Your task to perform on an android device: empty trash in the gmail app Image 0: 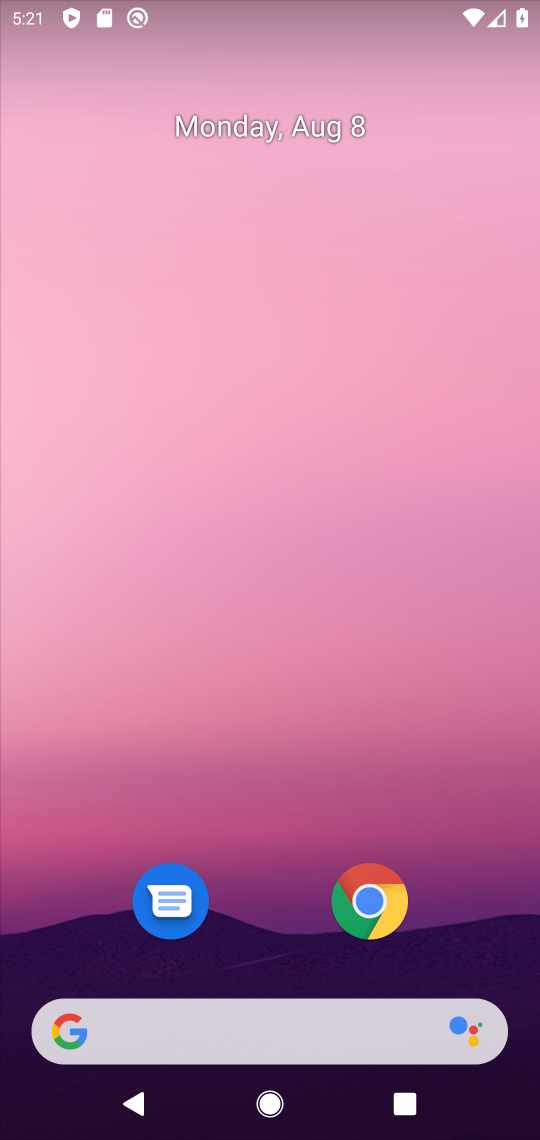
Step 0: click (428, 910)
Your task to perform on an android device: empty trash in the gmail app Image 1: 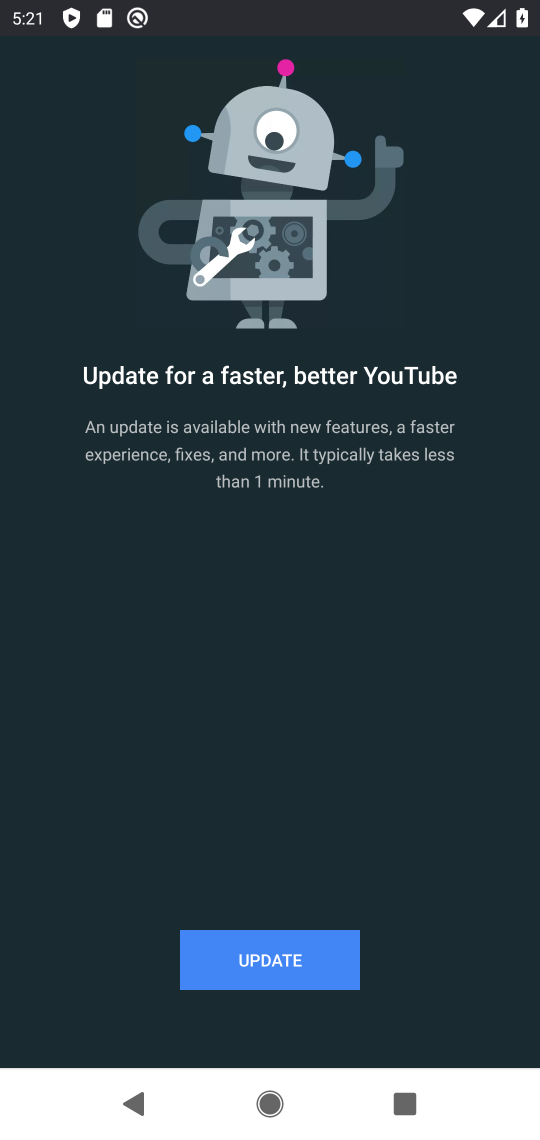
Step 1: click (321, 895)
Your task to perform on an android device: empty trash in the gmail app Image 2: 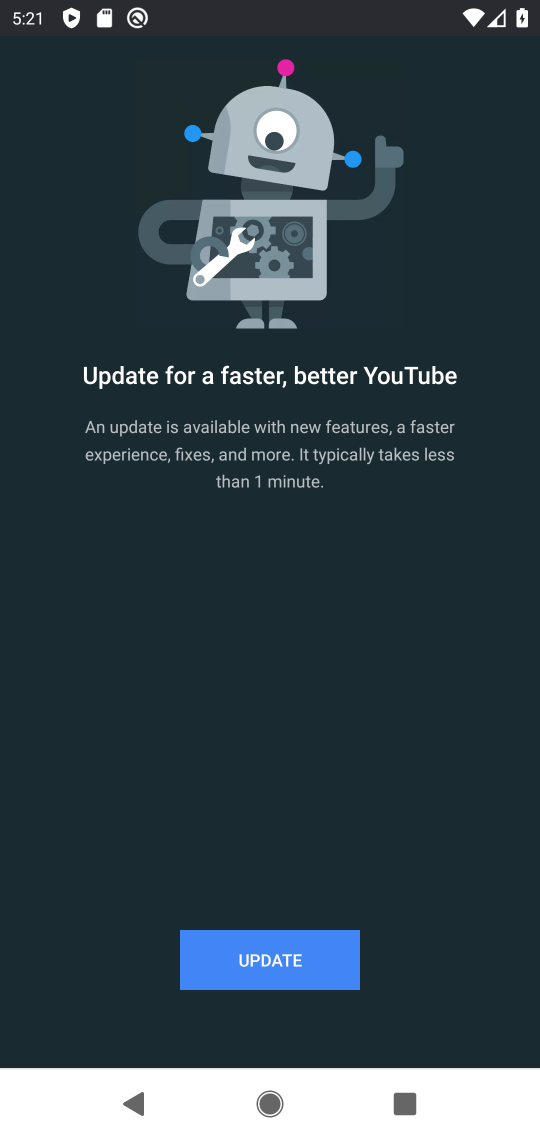
Step 2: press back button
Your task to perform on an android device: empty trash in the gmail app Image 3: 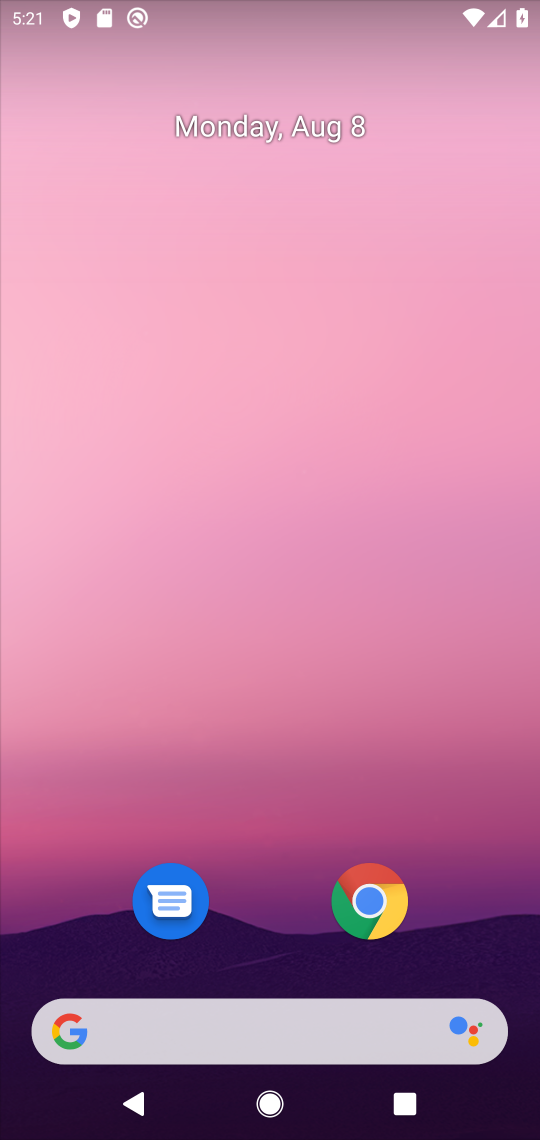
Step 3: drag from (521, 894) to (388, 77)
Your task to perform on an android device: empty trash in the gmail app Image 4: 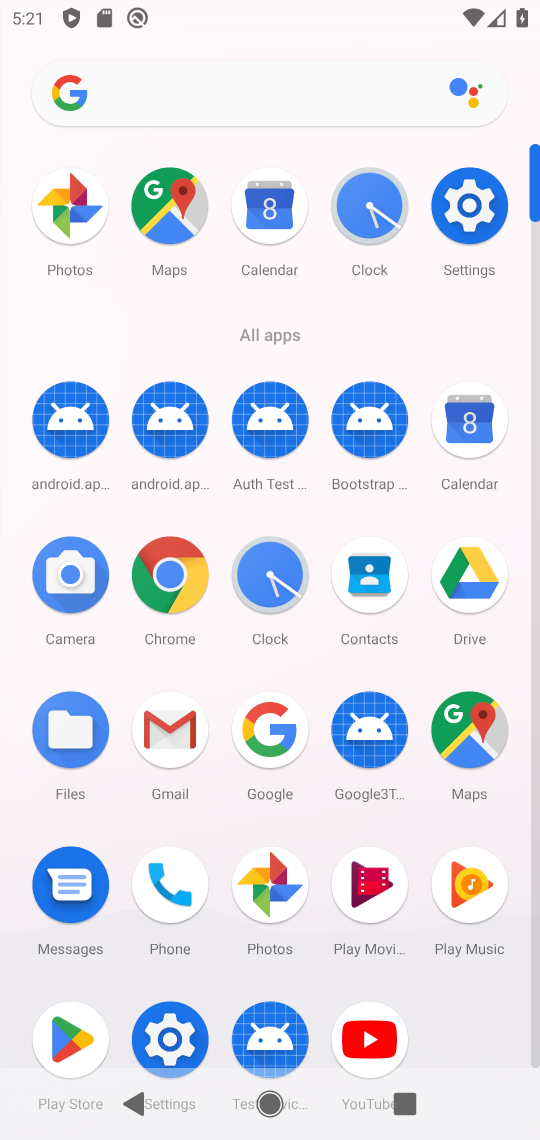
Step 4: click (157, 762)
Your task to perform on an android device: empty trash in the gmail app Image 5: 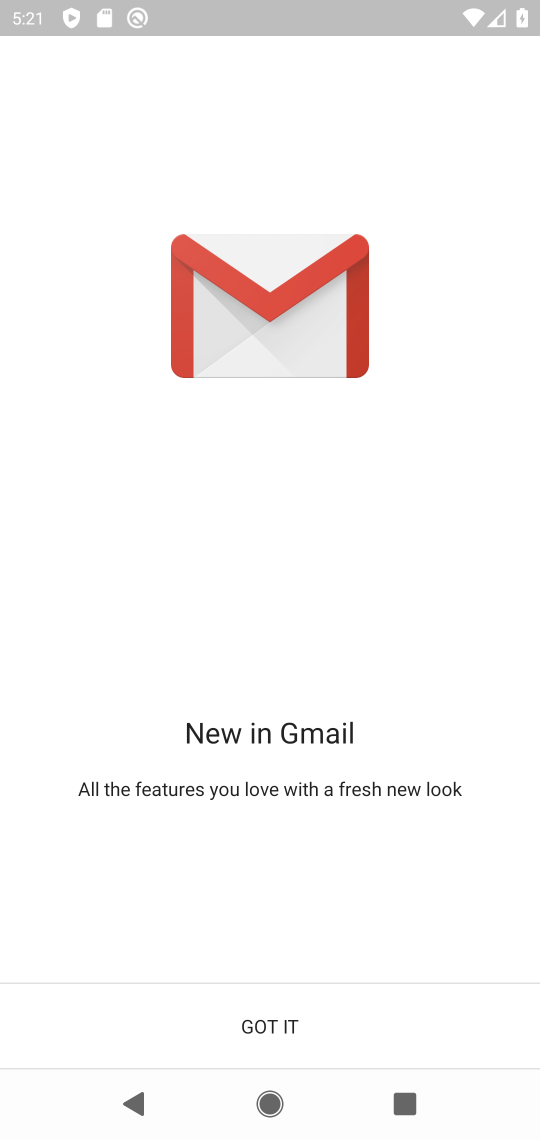
Step 5: click (286, 1026)
Your task to perform on an android device: empty trash in the gmail app Image 6: 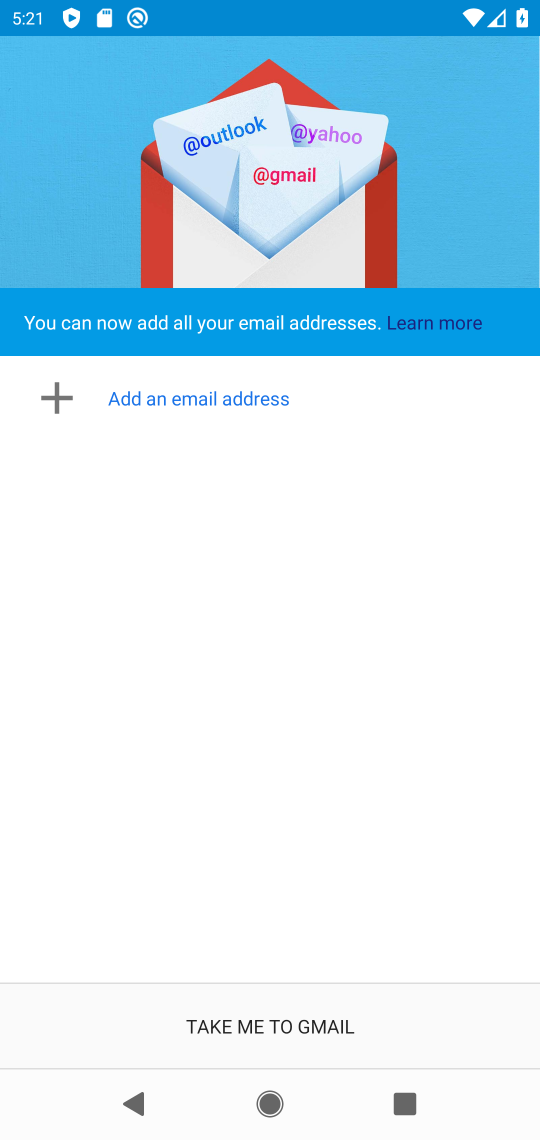
Step 6: click (325, 1041)
Your task to perform on an android device: empty trash in the gmail app Image 7: 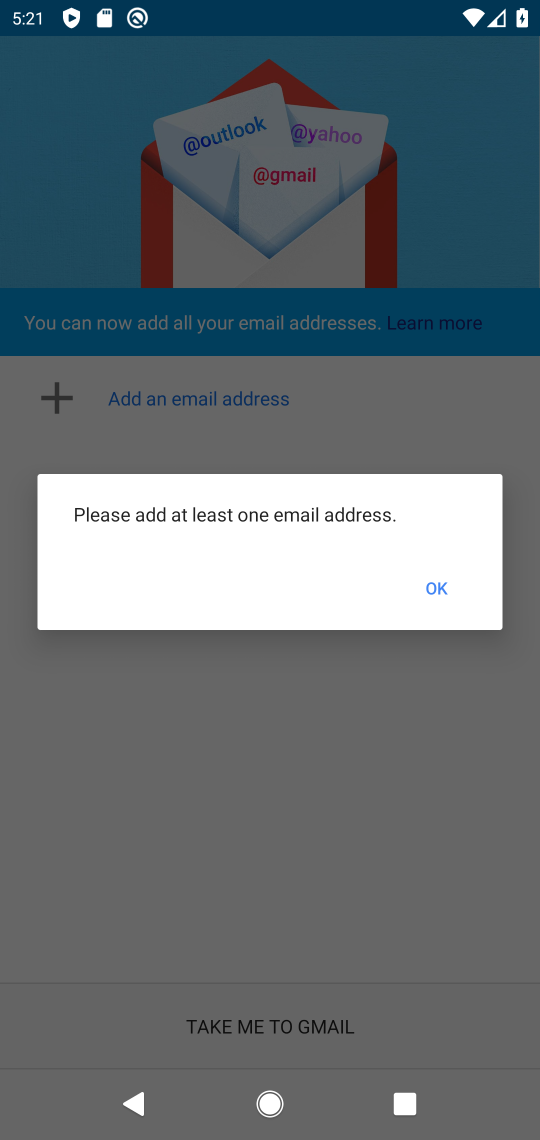
Step 7: task complete